Your task to perform on an android device: Search for "usb-b" on costco.com, select the first entry, and add it to the cart. Image 0: 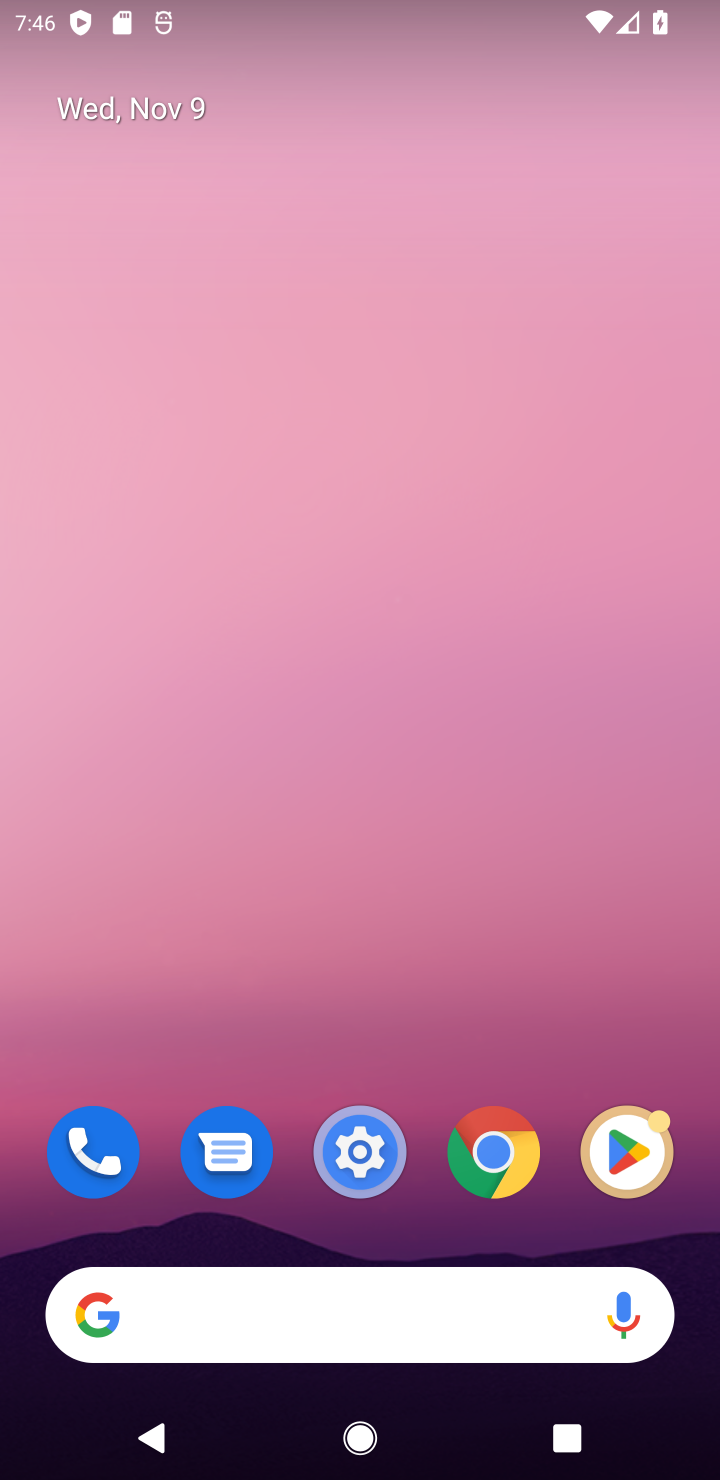
Step 0: click (489, 1150)
Your task to perform on an android device: Search for "usb-b" on costco.com, select the first entry, and add it to the cart. Image 1: 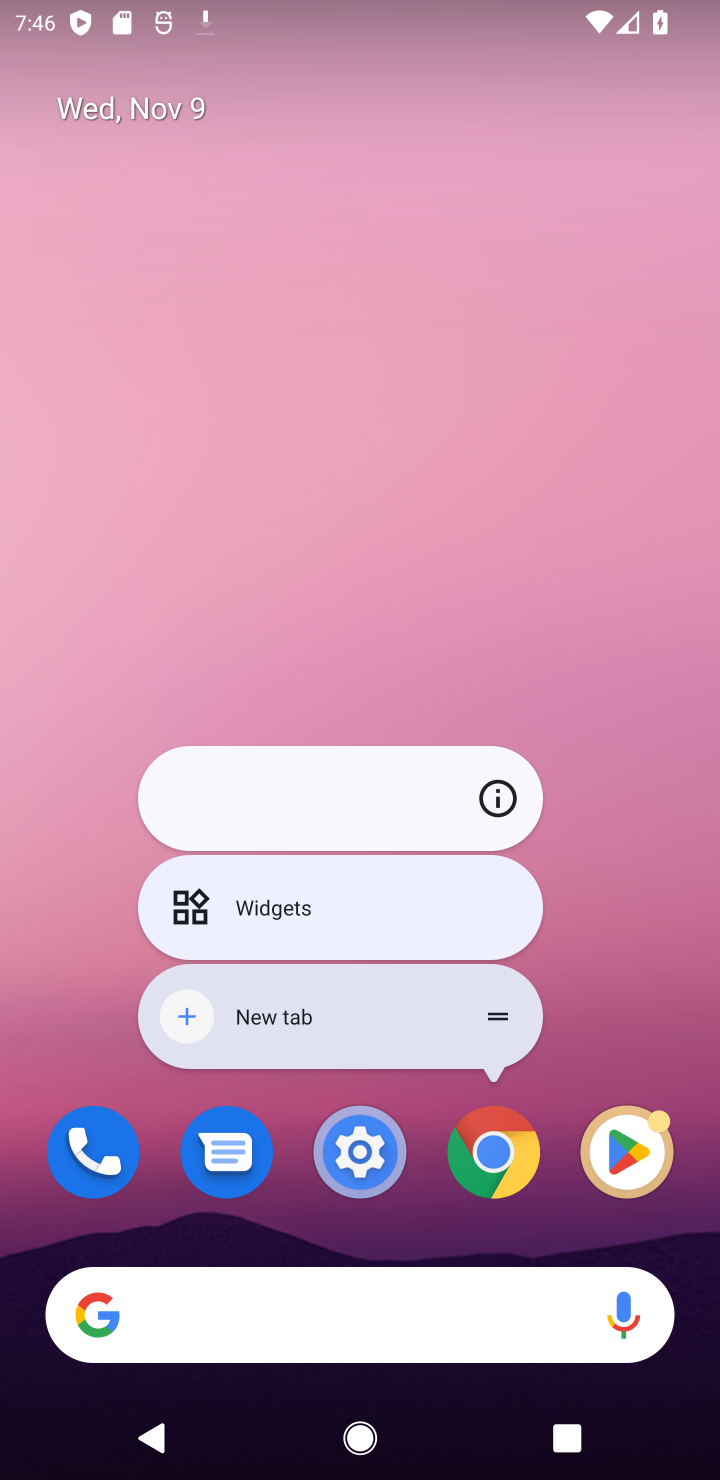
Step 1: click (489, 1161)
Your task to perform on an android device: Search for "usb-b" on costco.com, select the first entry, and add it to the cart. Image 2: 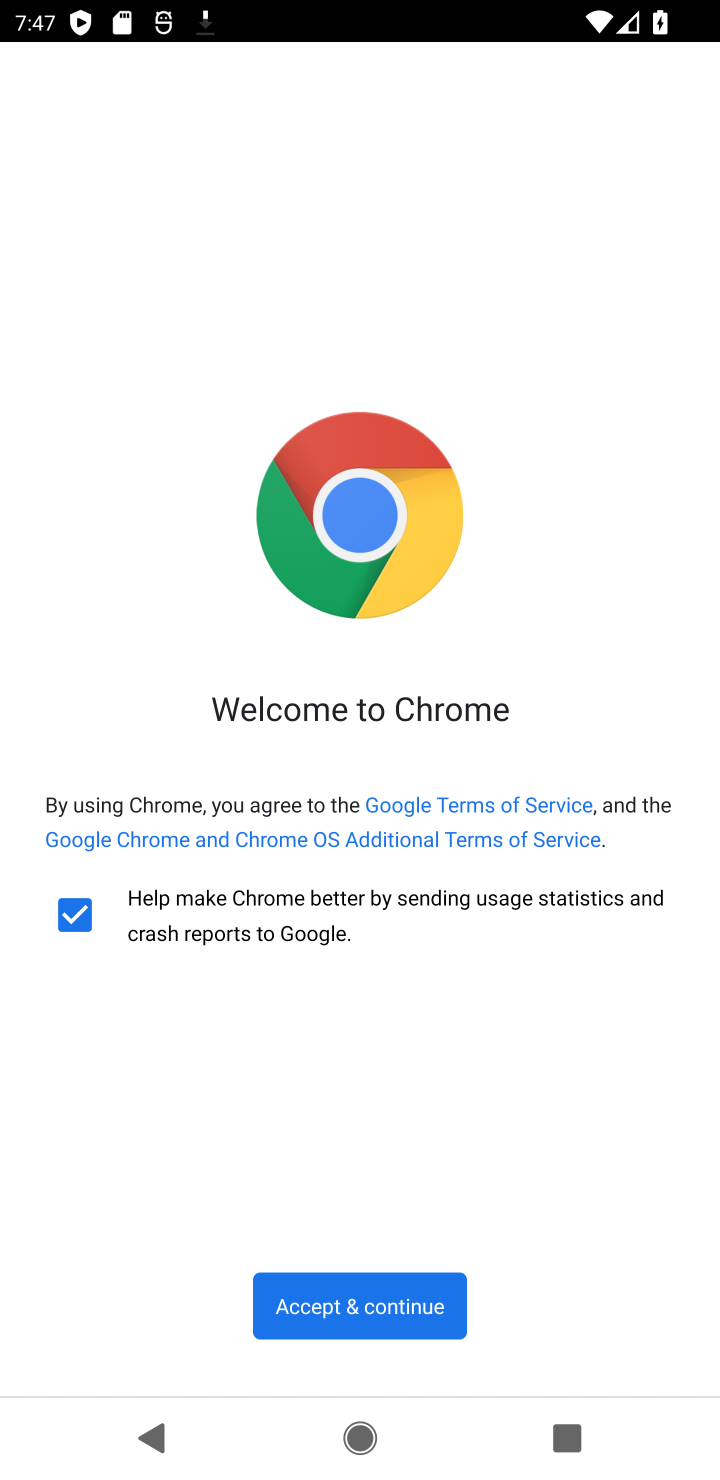
Step 2: click (370, 1291)
Your task to perform on an android device: Search for "usb-b" on costco.com, select the first entry, and add it to the cart. Image 3: 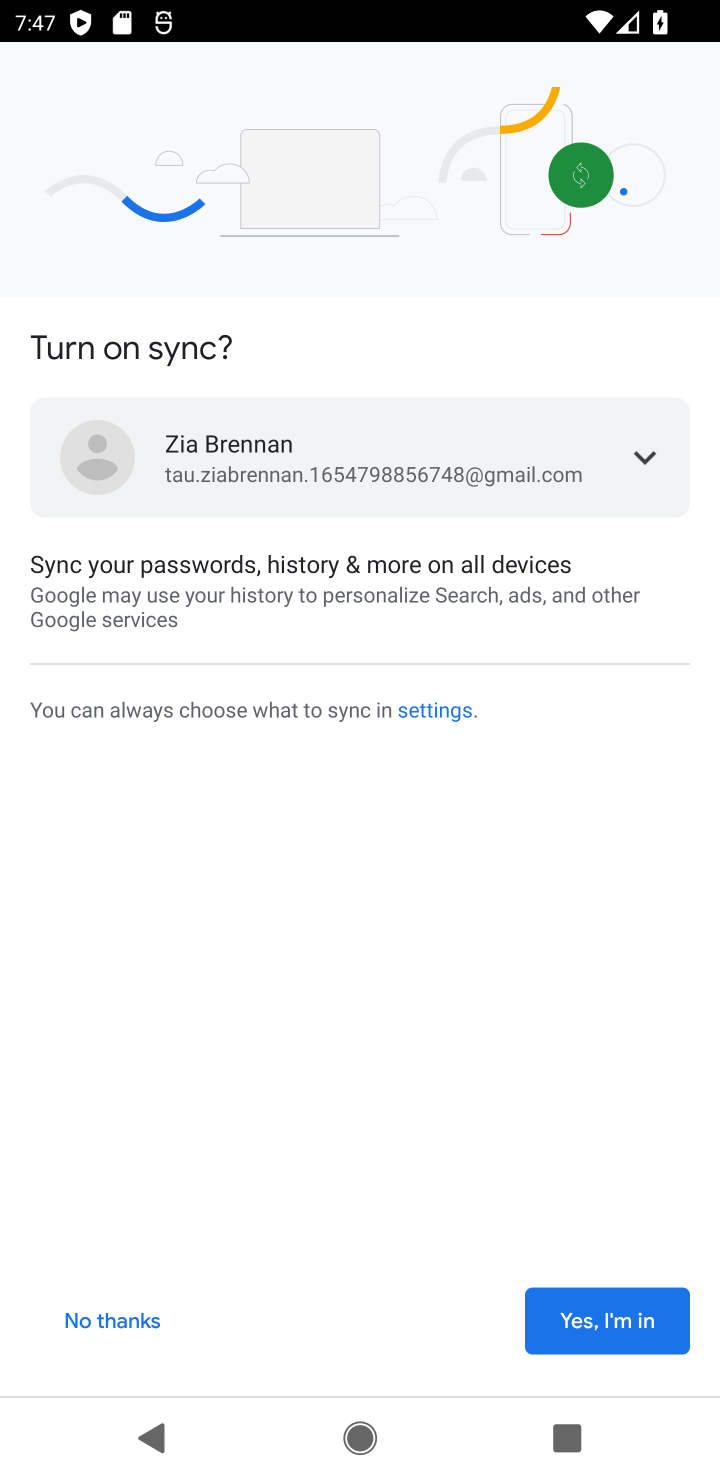
Step 3: click (635, 1320)
Your task to perform on an android device: Search for "usb-b" on costco.com, select the first entry, and add it to the cart. Image 4: 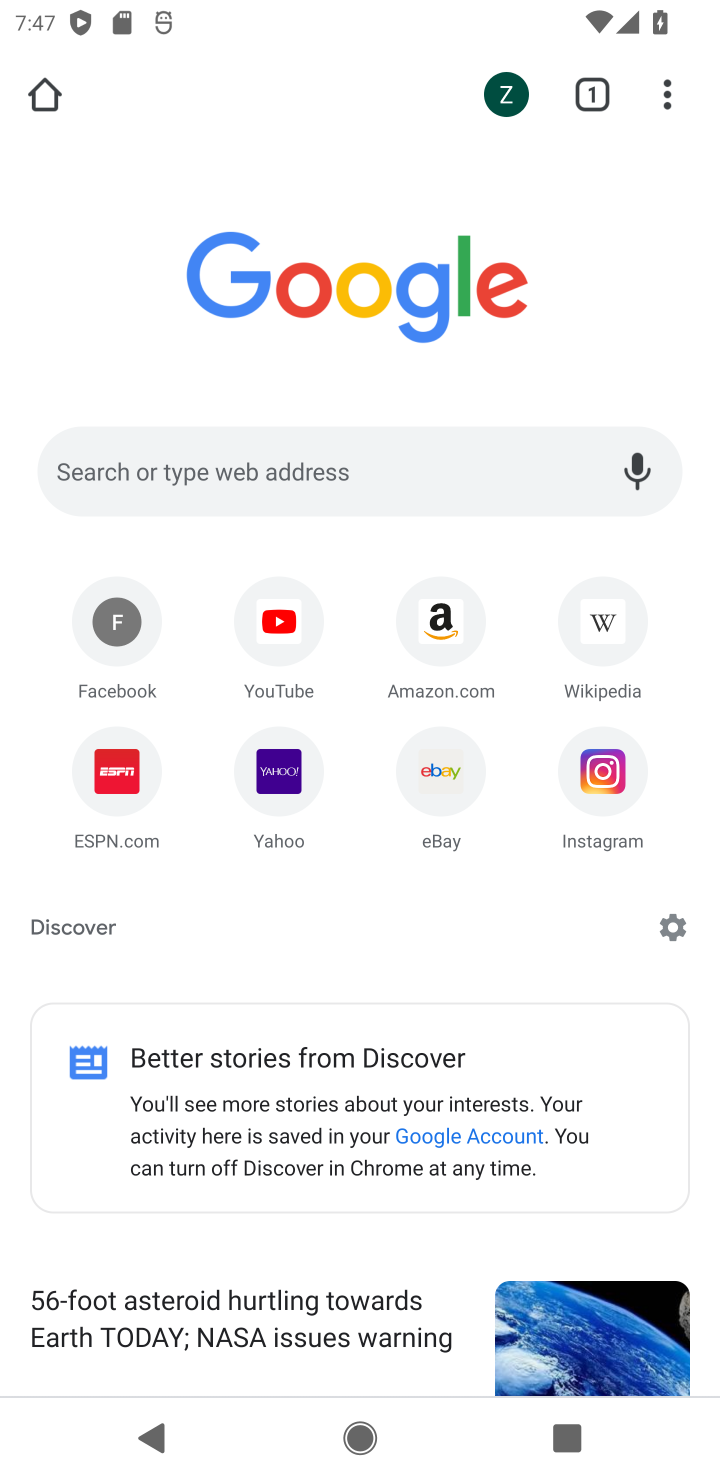
Step 4: click (311, 454)
Your task to perform on an android device: Search for "usb-b" on costco.com, select the first entry, and add it to the cart. Image 5: 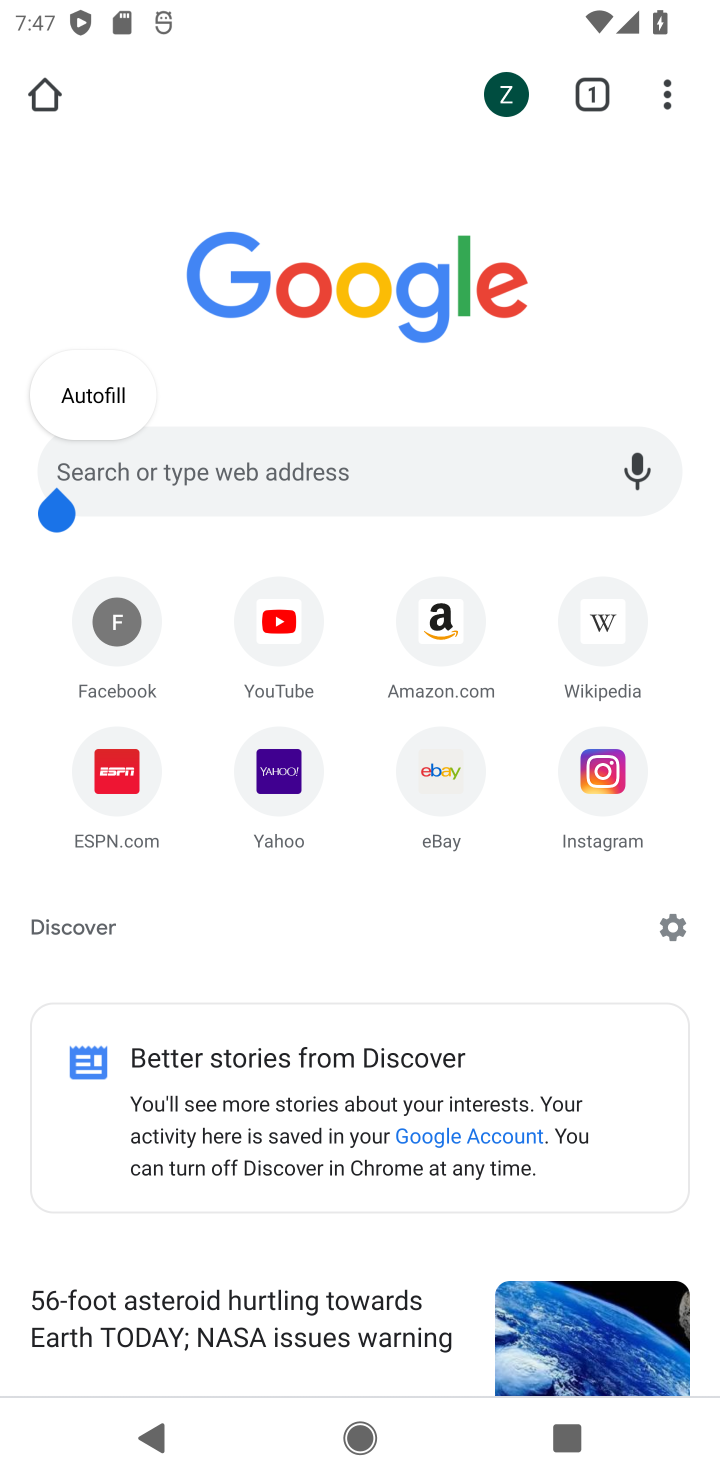
Step 5: click (192, 475)
Your task to perform on an android device: Search for "usb-b" on costco.com, select the first entry, and add it to the cart. Image 6: 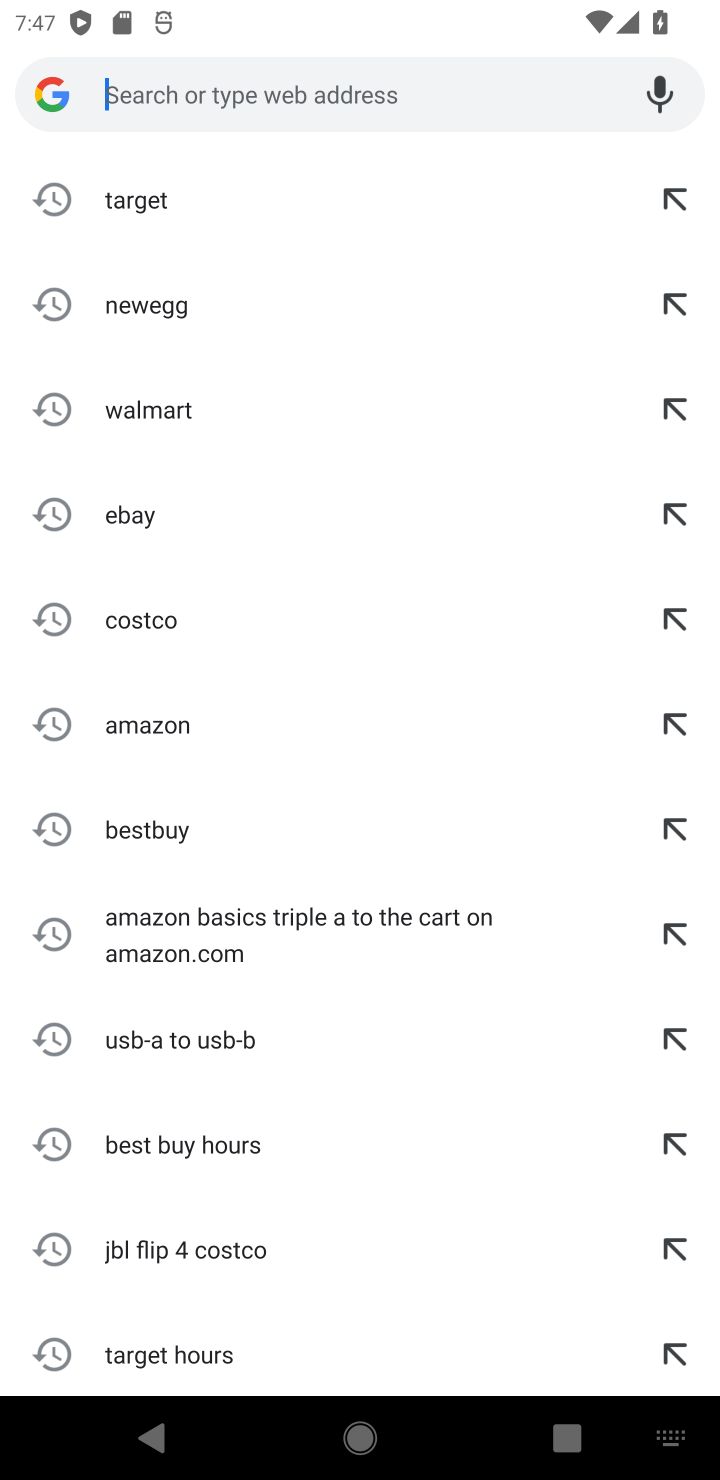
Step 6: click (131, 623)
Your task to perform on an android device: Search for "usb-b" on costco.com, select the first entry, and add it to the cart. Image 7: 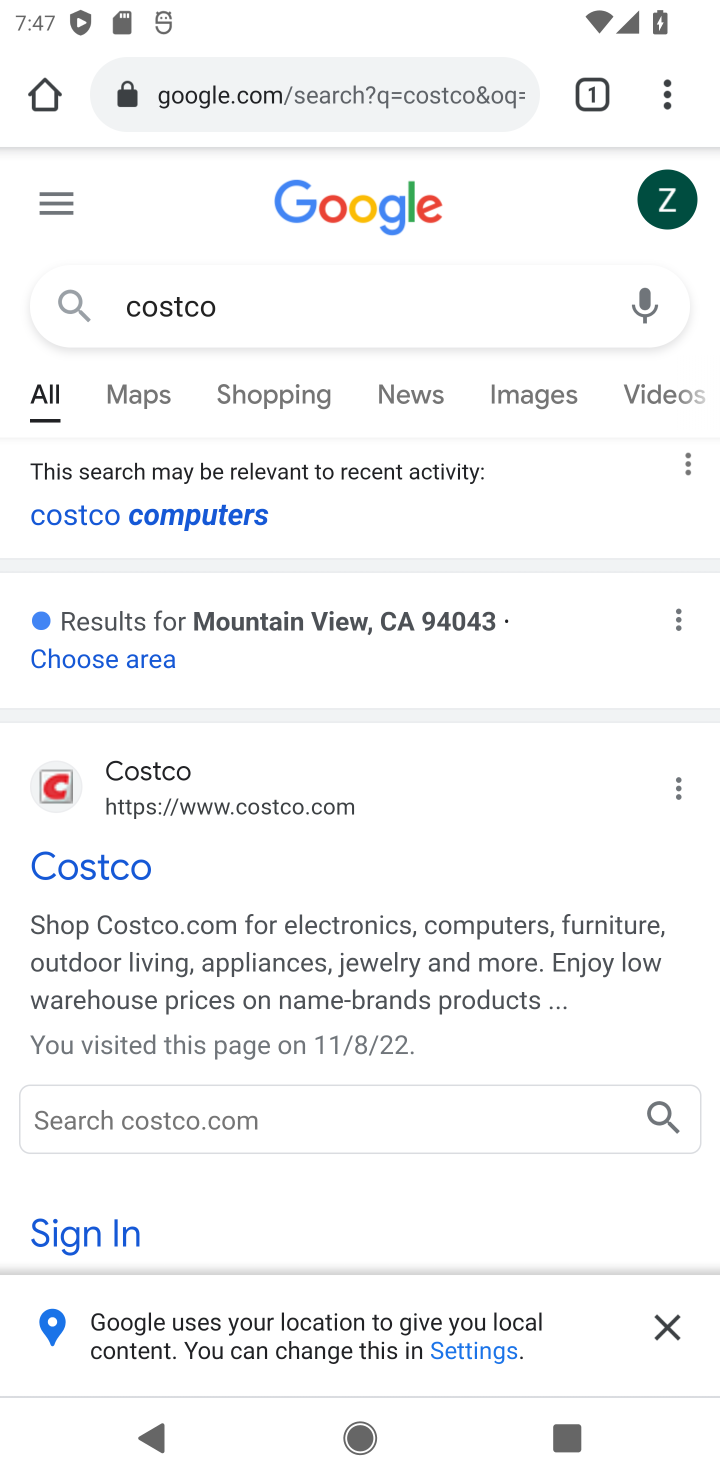
Step 7: click (77, 864)
Your task to perform on an android device: Search for "usb-b" on costco.com, select the first entry, and add it to the cart. Image 8: 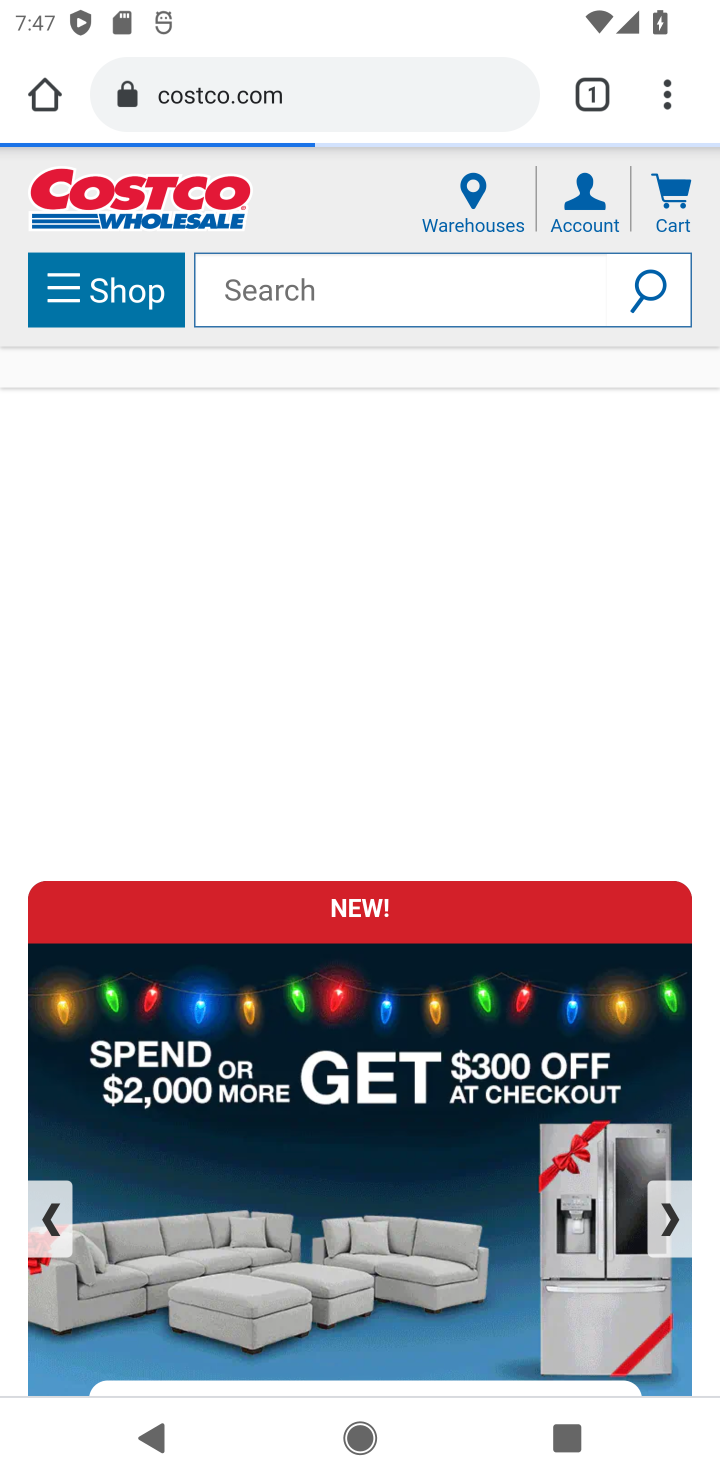
Step 8: click (362, 292)
Your task to perform on an android device: Search for "usb-b" on costco.com, select the first entry, and add it to the cart. Image 9: 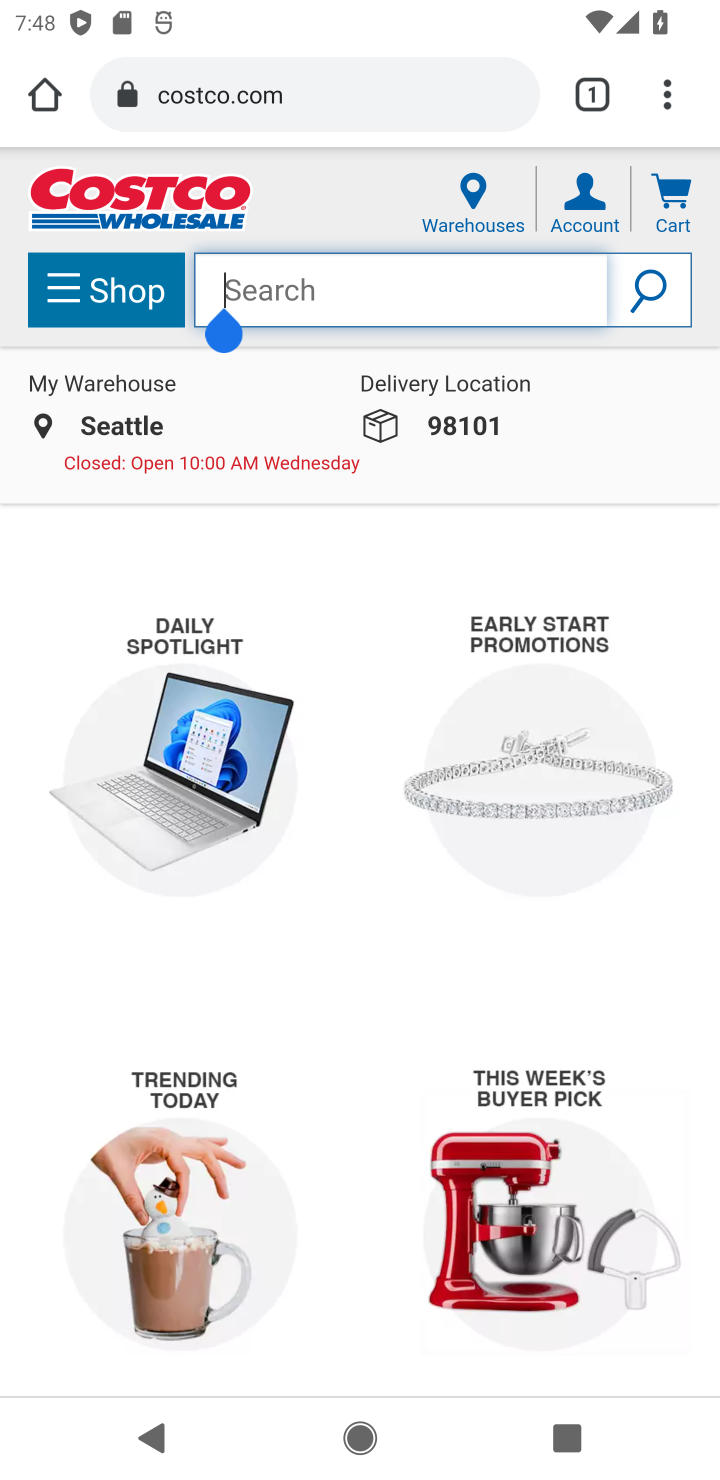
Step 9: type "usb-b"
Your task to perform on an android device: Search for "usb-b" on costco.com, select the first entry, and add it to the cart. Image 10: 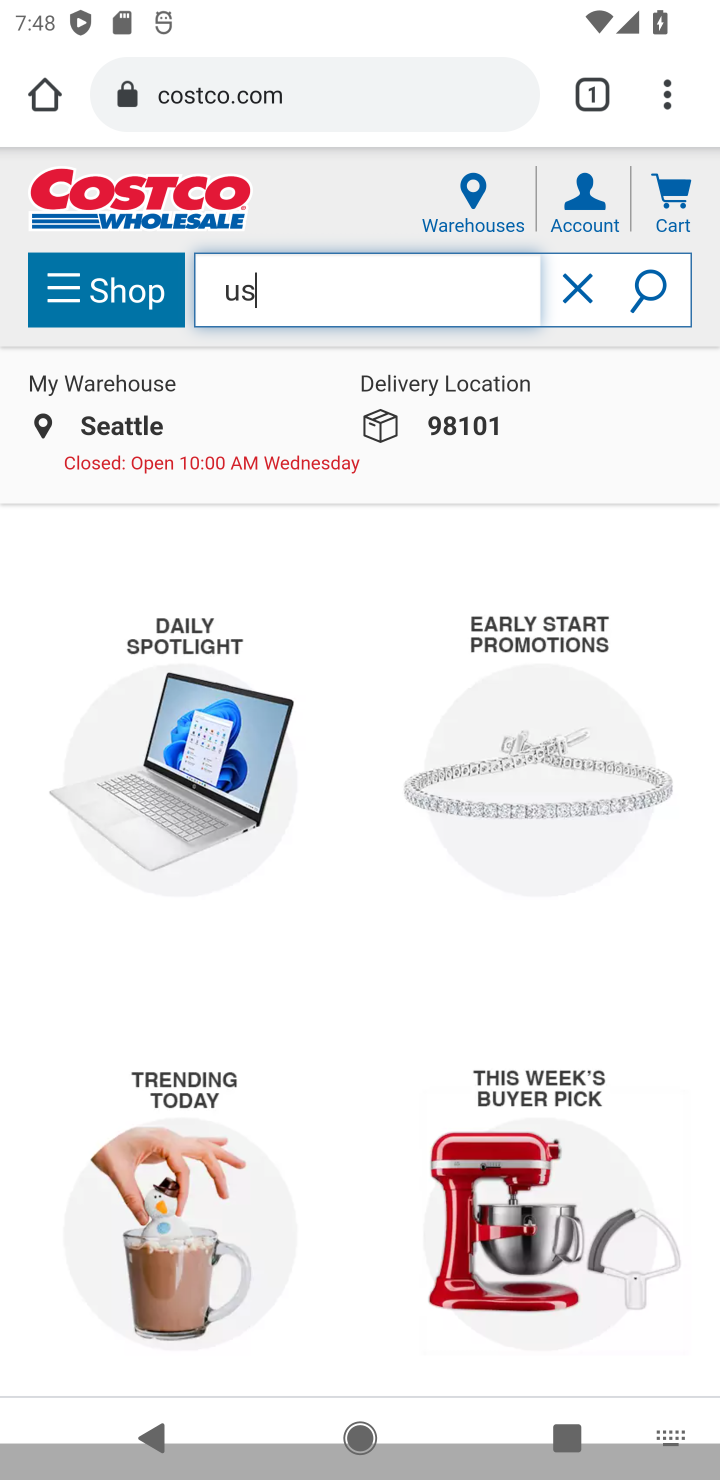
Step 10: press enter
Your task to perform on an android device: Search for "usb-b" on costco.com, select the first entry, and add it to the cart. Image 11: 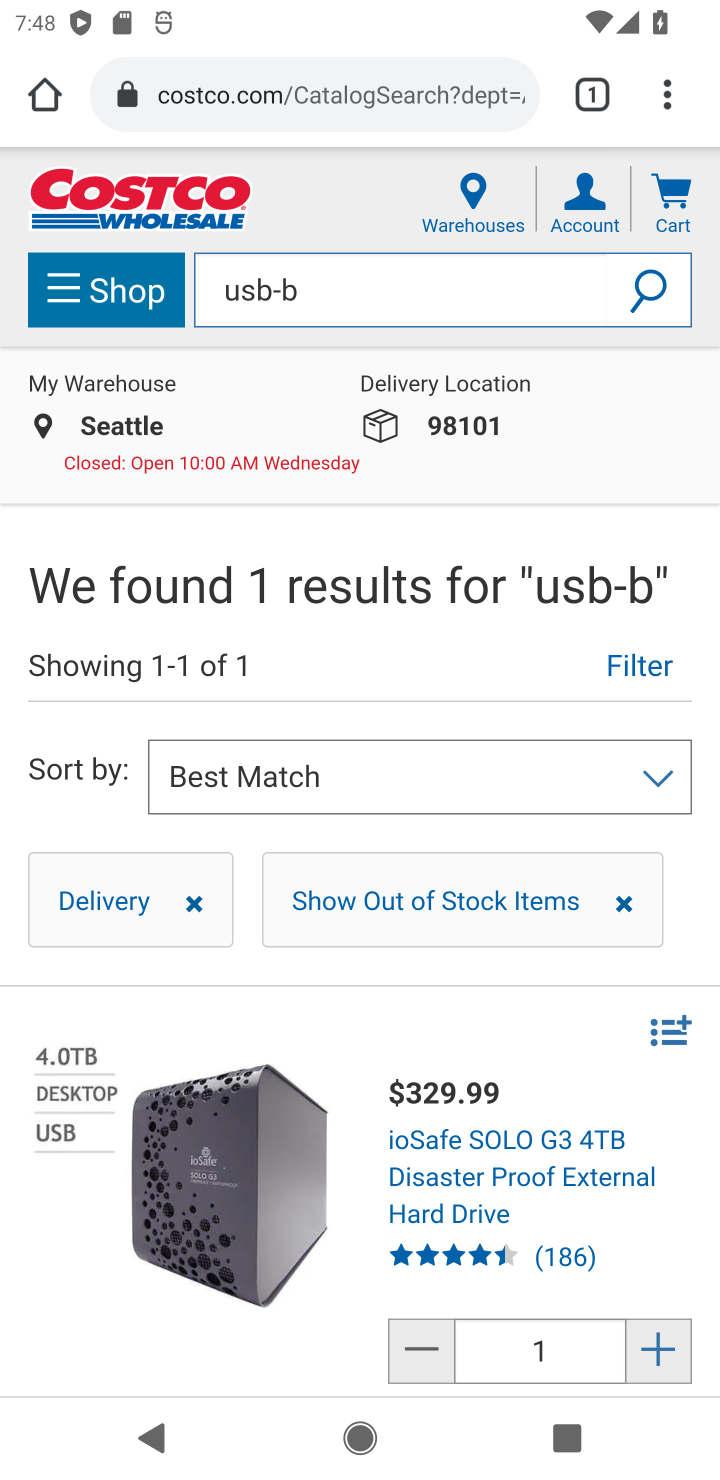
Step 11: task complete